Your task to perform on an android device: Open Maps and search for coffee Image 0: 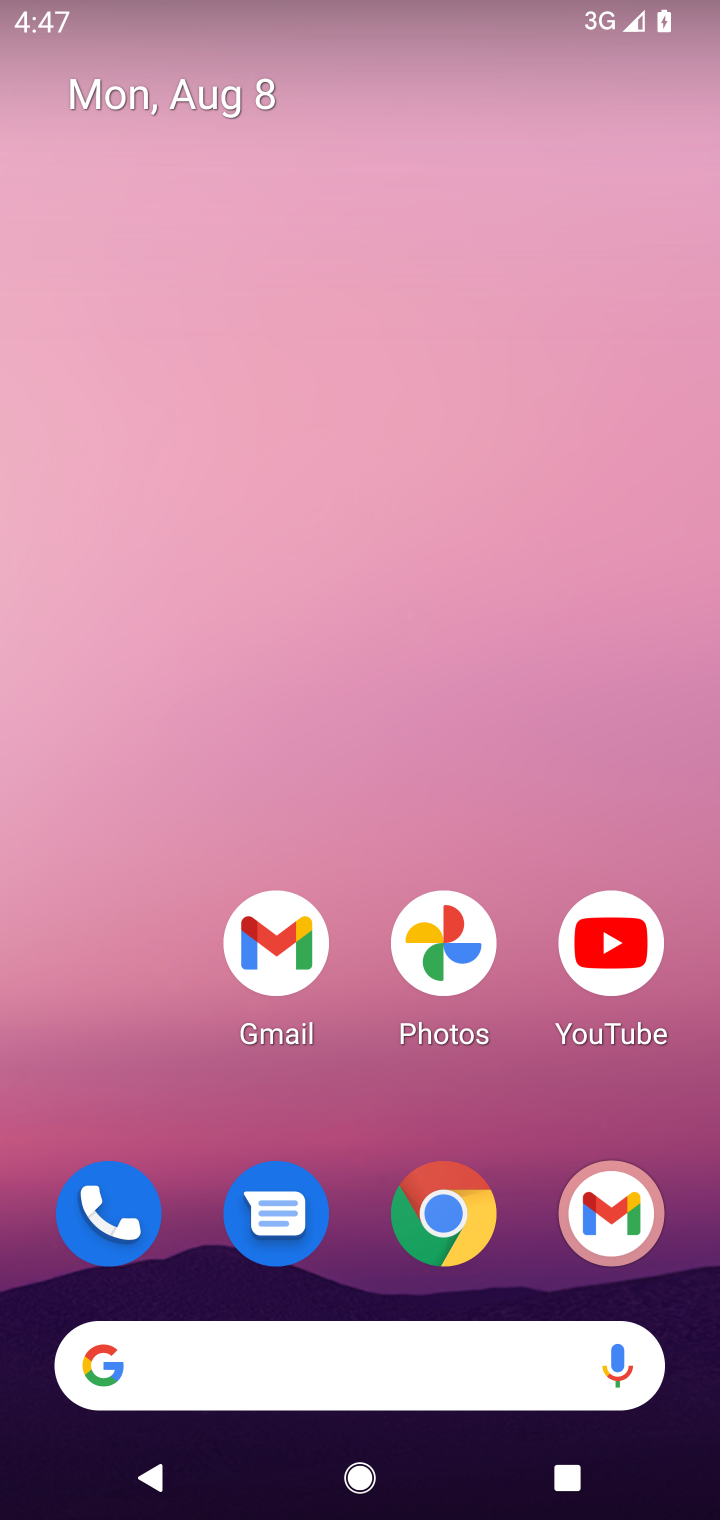
Step 0: drag from (376, 1153) to (461, 0)
Your task to perform on an android device: Open Maps and search for coffee Image 1: 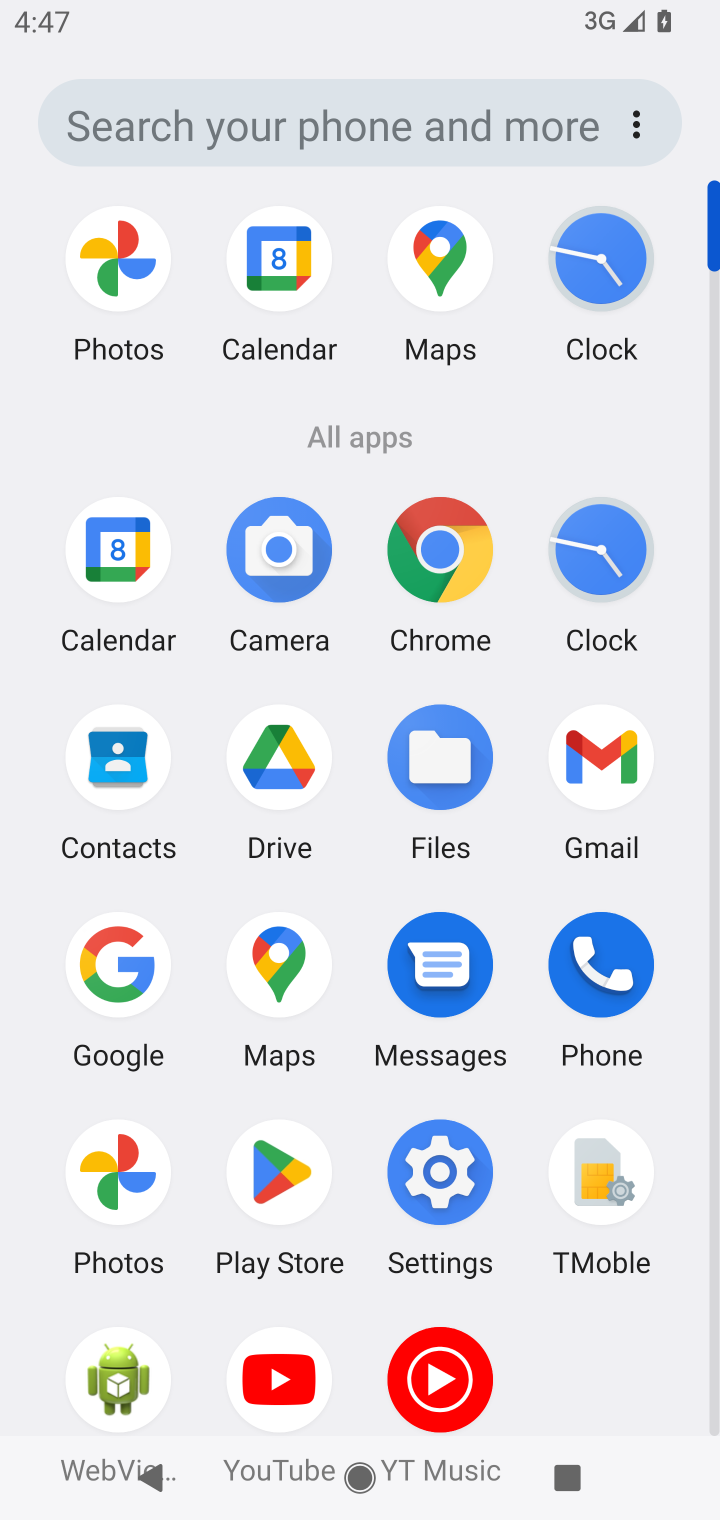
Step 1: click (426, 228)
Your task to perform on an android device: Open Maps and search for coffee Image 2: 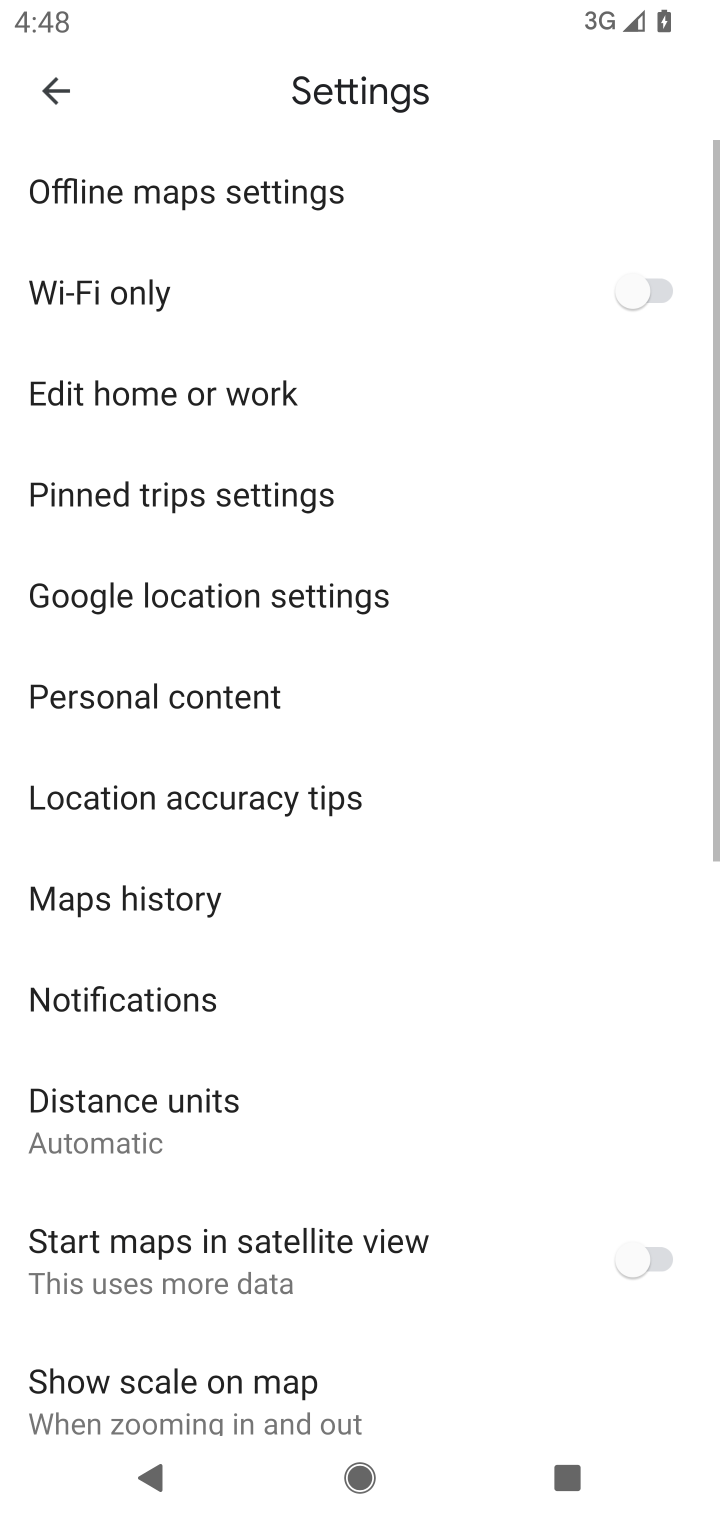
Step 2: click (49, 101)
Your task to perform on an android device: Open Maps and search for coffee Image 3: 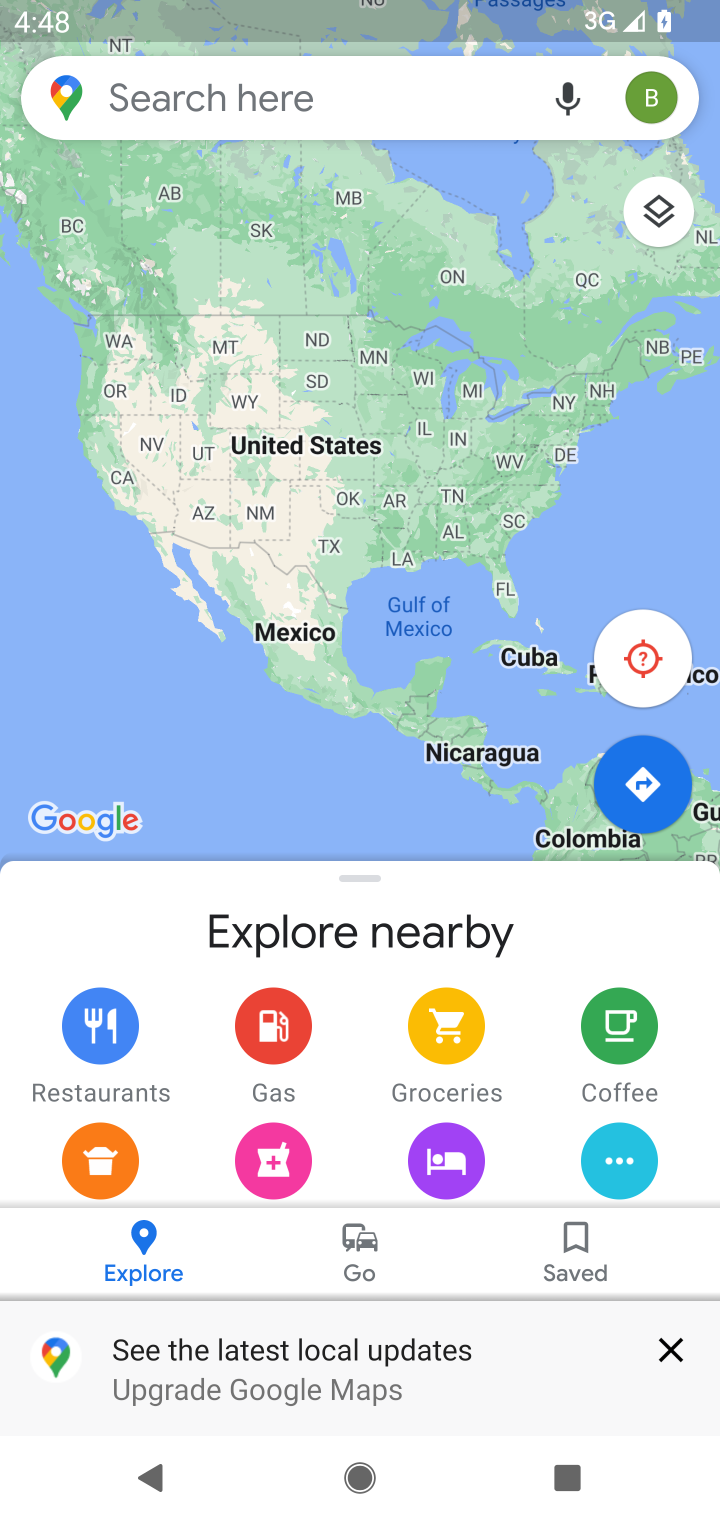
Step 3: click (303, 81)
Your task to perform on an android device: Open Maps and search for coffee Image 4: 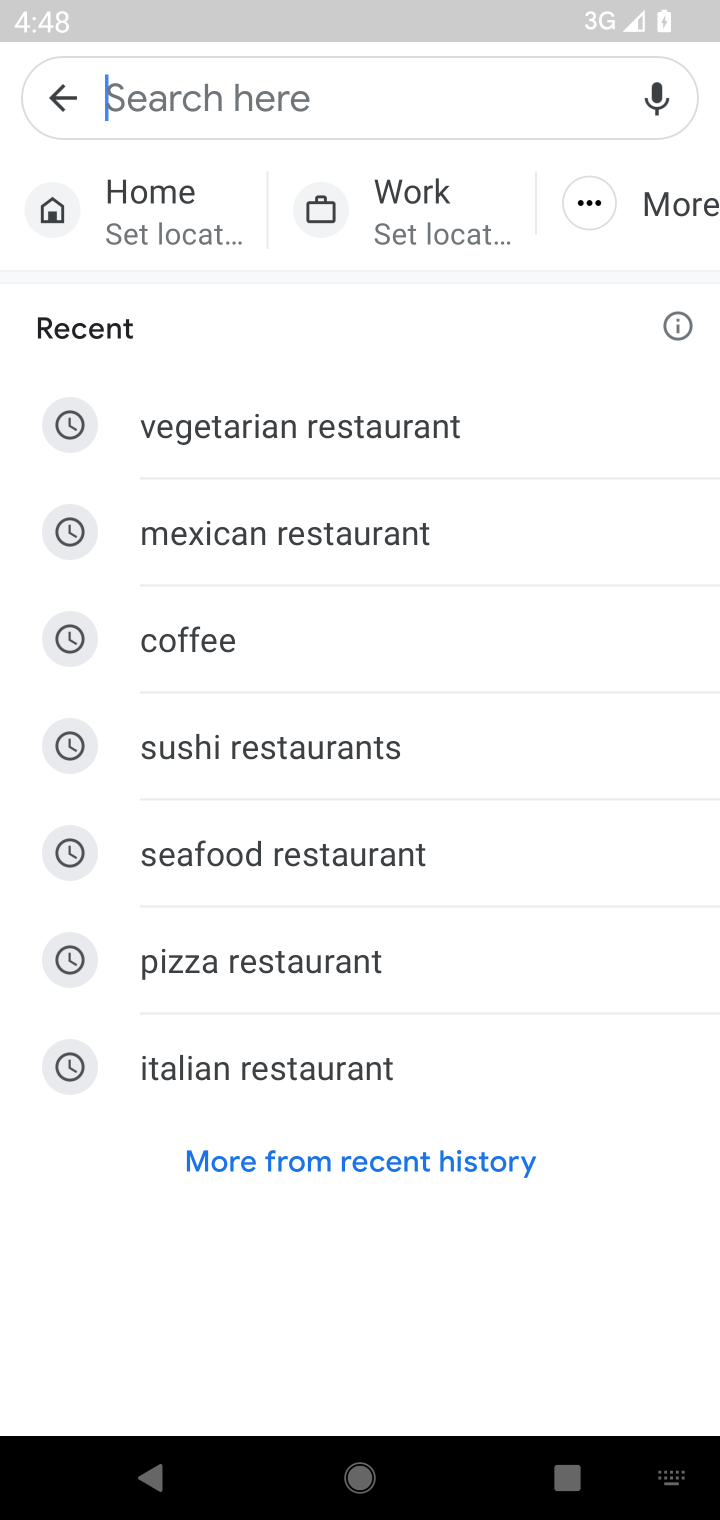
Step 4: type "coffee"
Your task to perform on an android device: Open Maps and search for coffee Image 5: 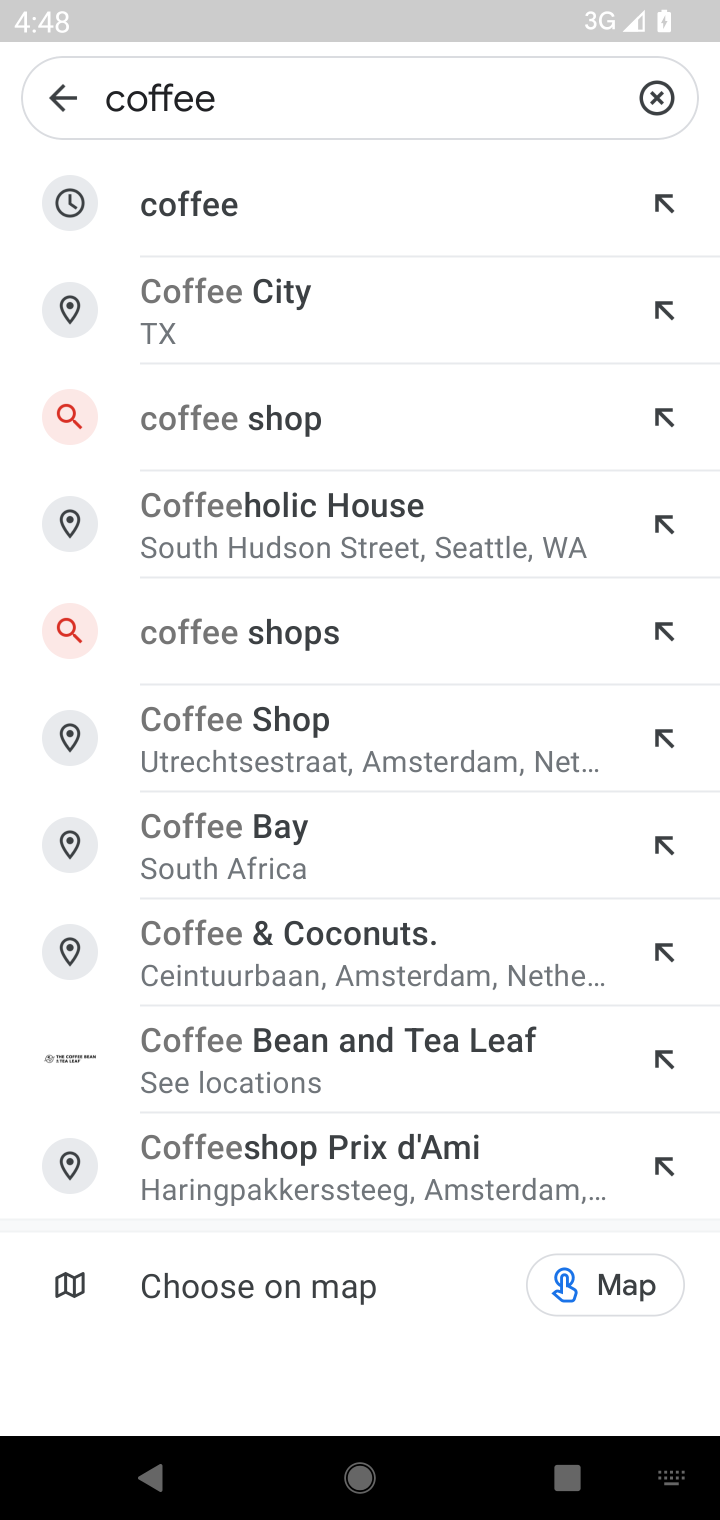
Step 5: click (246, 196)
Your task to perform on an android device: Open Maps and search for coffee Image 6: 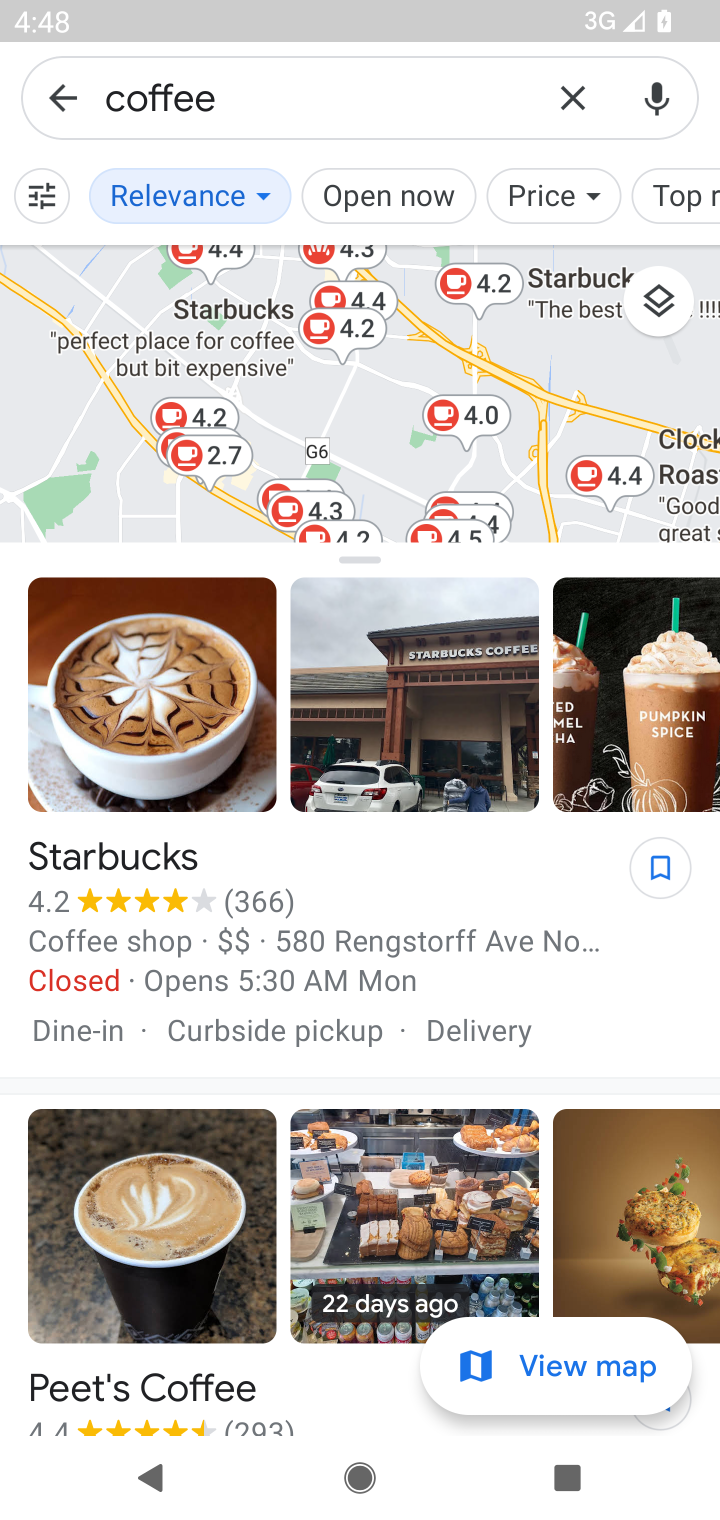
Step 6: task complete